Your task to perform on an android device: change timer sound Image 0: 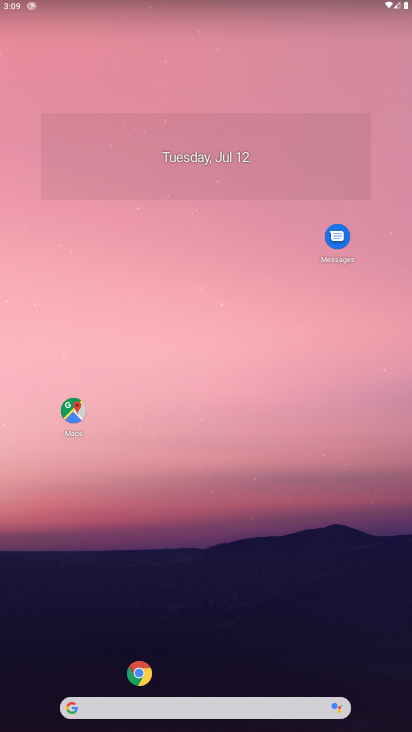
Step 0: drag from (130, 372) to (167, 268)
Your task to perform on an android device: change timer sound Image 1: 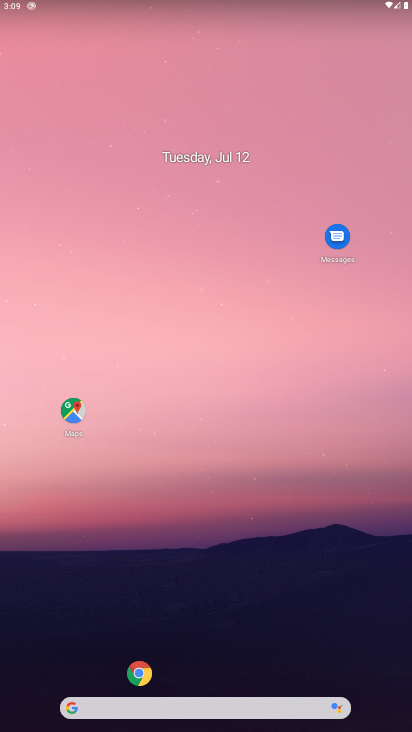
Step 1: drag from (22, 711) to (297, 43)
Your task to perform on an android device: change timer sound Image 2: 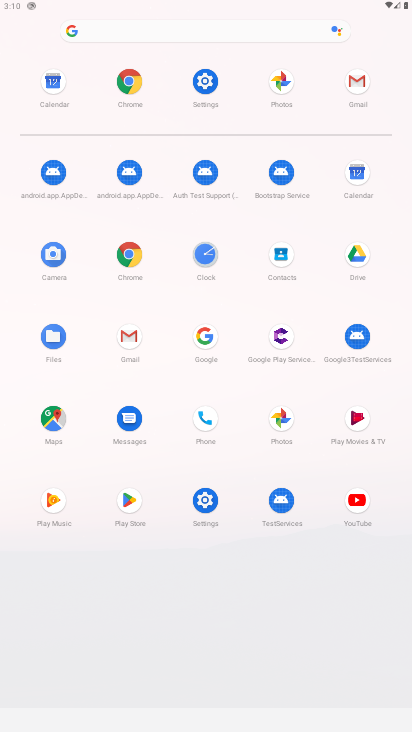
Step 2: click (206, 259)
Your task to perform on an android device: change timer sound Image 3: 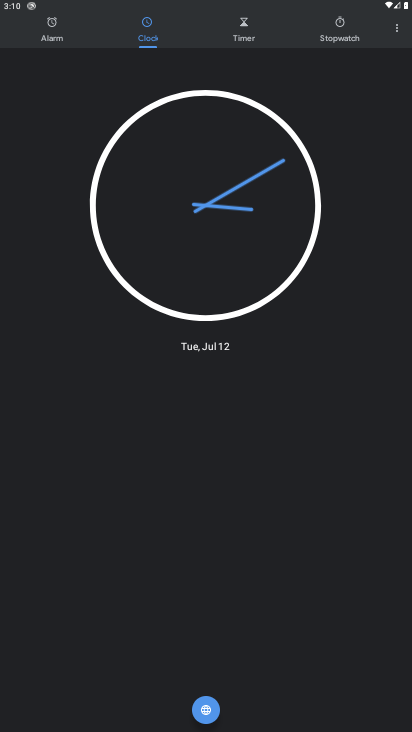
Step 3: click (248, 27)
Your task to perform on an android device: change timer sound Image 4: 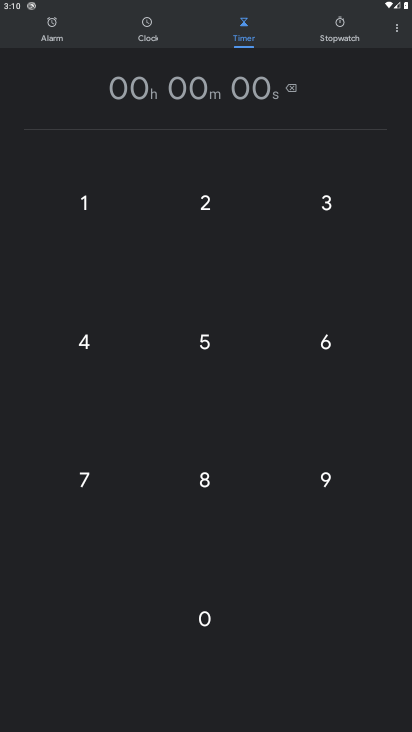
Step 4: click (390, 37)
Your task to perform on an android device: change timer sound Image 5: 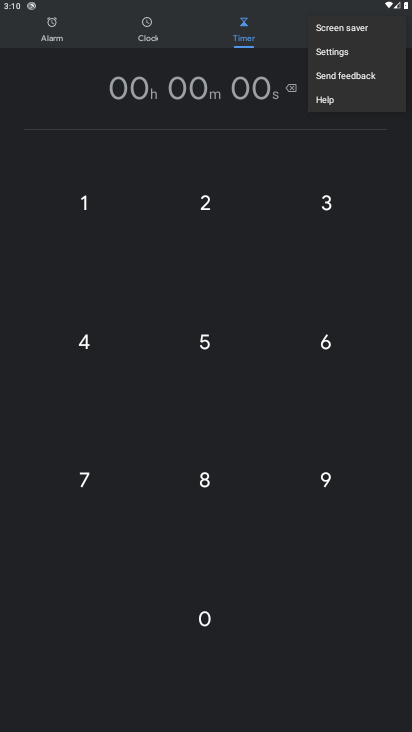
Step 5: click (341, 54)
Your task to perform on an android device: change timer sound Image 6: 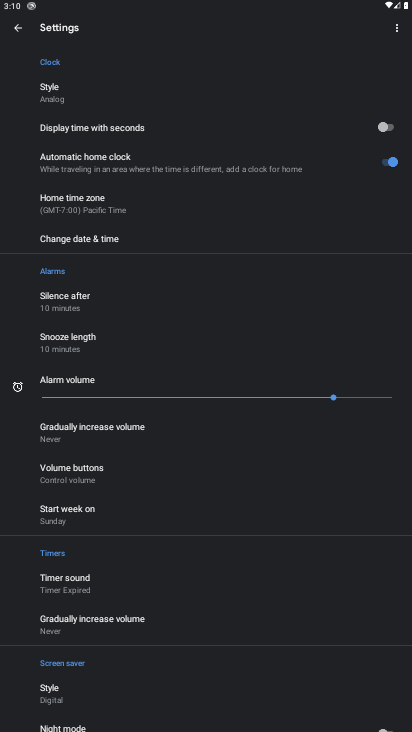
Step 6: click (64, 594)
Your task to perform on an android device: change timer sound Image 7: 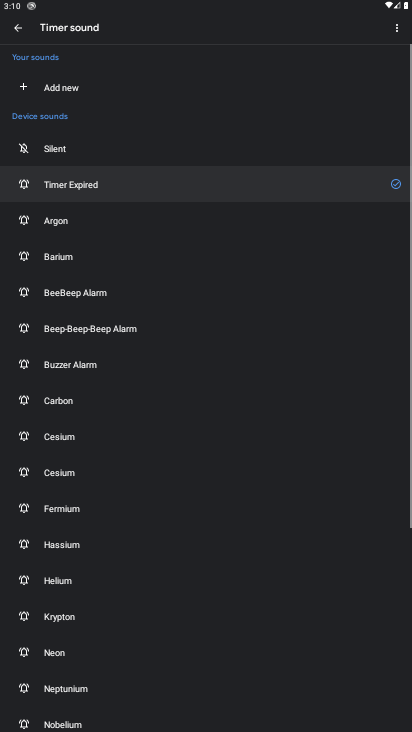
Step 7: click (65, 223)
Your task to perform on an android device: change timer sound Image 8: 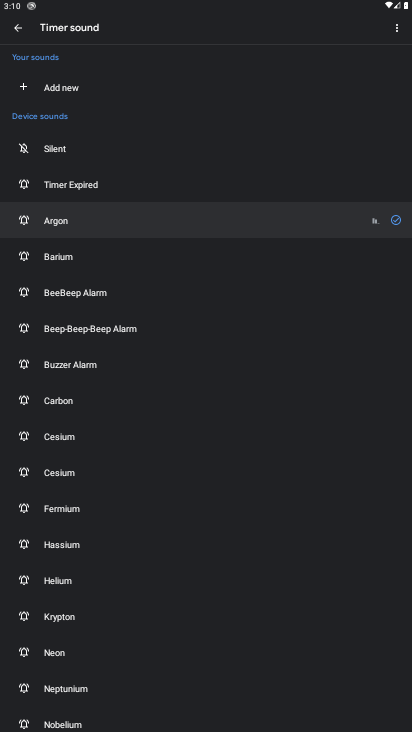
Step 8: task complete